Your task to perform on an android device: Search for vegetarian restaurants on Maps Image 0: 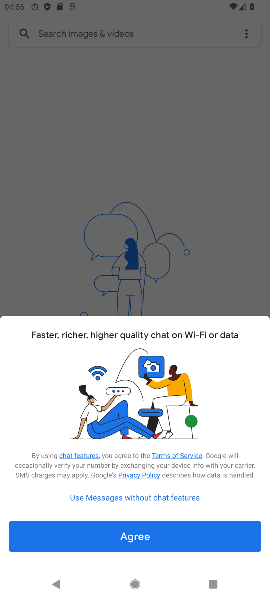
Step 0: press home button
Your task to perform on an android device: Search for vegetarian restaurants on Maps Image 1: 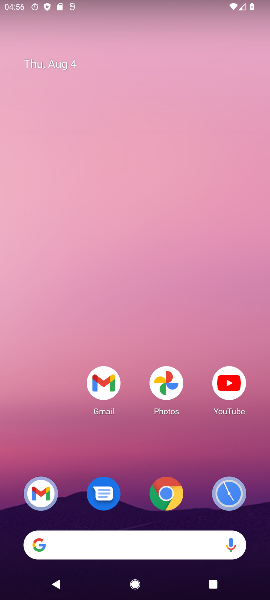
Step 1: drag from (44, 576) to (135, 84)
Your task to perform on an android device: Search for vegetarian restaurants on Maps Image 2: 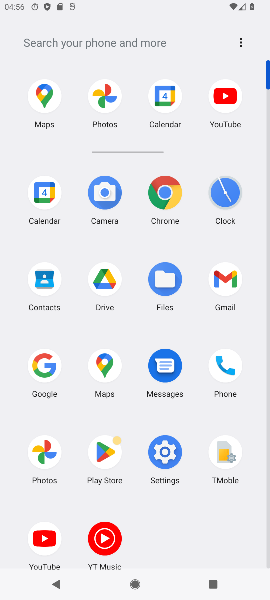
Step 2: click (113, 345)
Your task to perform on an android device: Search for vegetarian restaurants on Maps Image 3: 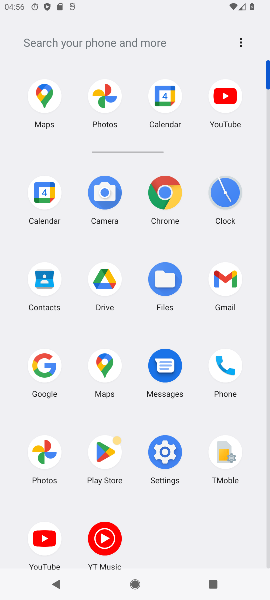
Step 3: click (106, 363)
Your task to perform on an android device: Search for vegetarian restaurants on Maps Image 4: 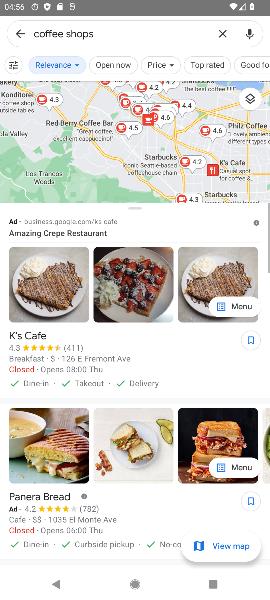
Step 4: click (19, 34)
Your task to perform on an android device: Search for vegetarian restaurants on Maps Image 5: 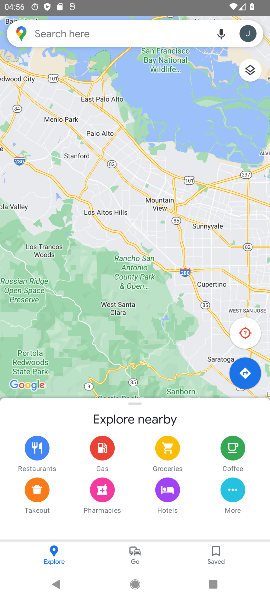
Step 5: click (60, 18)
Your task to perform on an android device: Search for vegetarian restaurants on Maps Image 6: 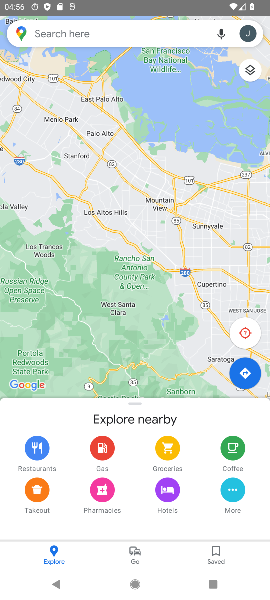
Step 6: click (51, 33)
Your task to perform on an android device: Search for vegetarian restaurants on Maps Image 7: 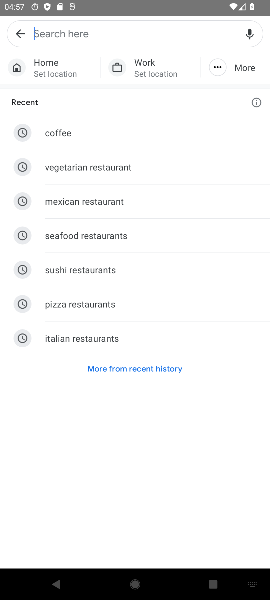
Step 7: click (94, 160)
Your task to perform on an android device: Search for vegetarian restaurants on Maps Image 8: 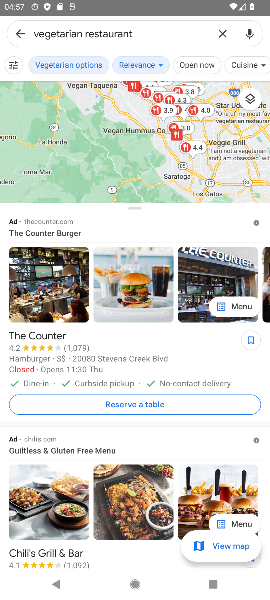
Step 8: task complete